Your task to perform on an android device: turn on location history Image 0: 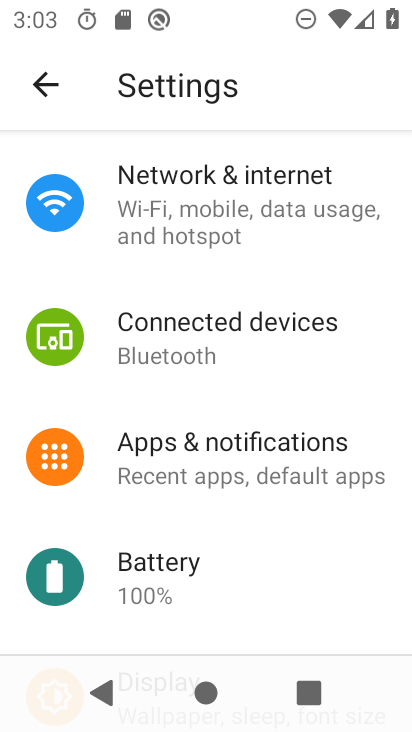
Step 0: press home button
Your task to perform on an android device: turn on location history Image 1: 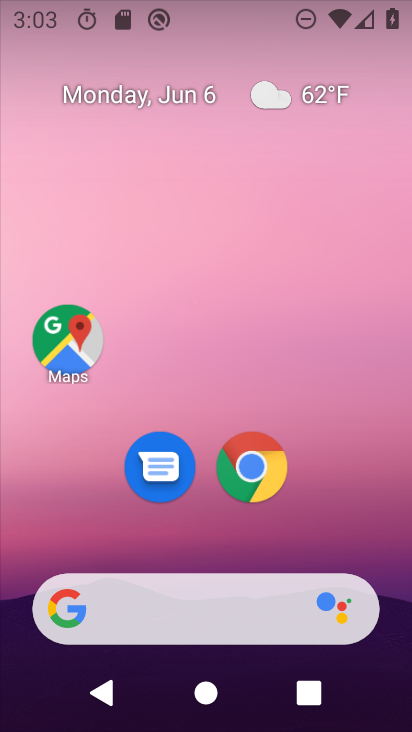
Step 1: drag from (203, 536) to (205, 48)
Your task to perform on an android device: turn on location history Image 2: 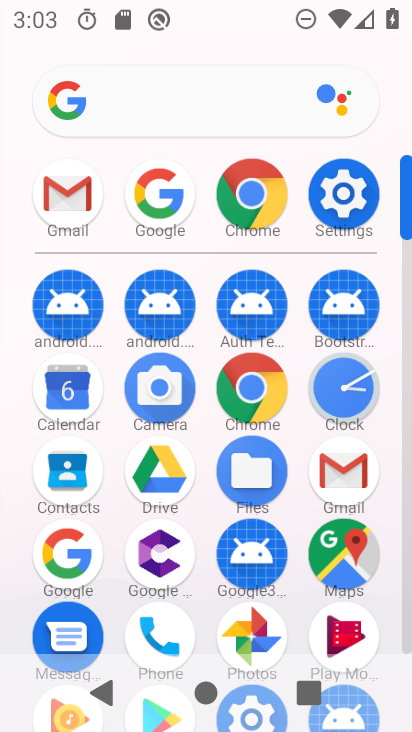
Step 2: click (344, 194)
Your task to perform on an android device: turn on location history Image 3: 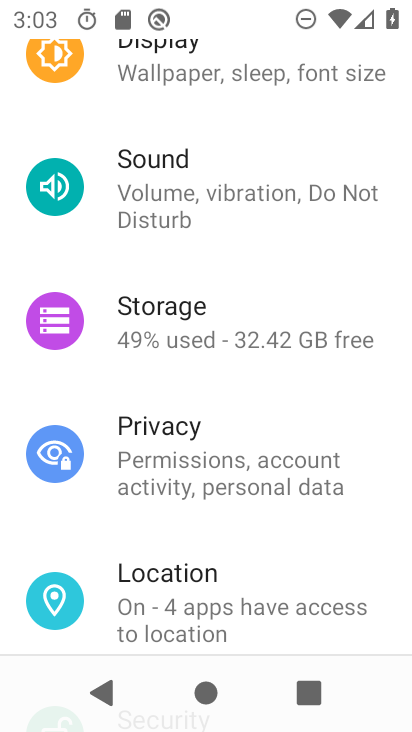
Step 3: drag from (183, 531) to (215, 146)
Your task to perform on an android device: turn on location history Image 4: 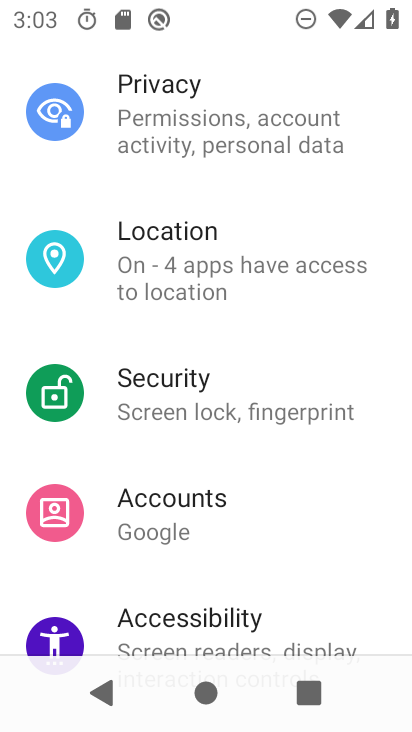
Step 4: click (239, 276)
Your task to perform on an android device: turn on location history Image 5: 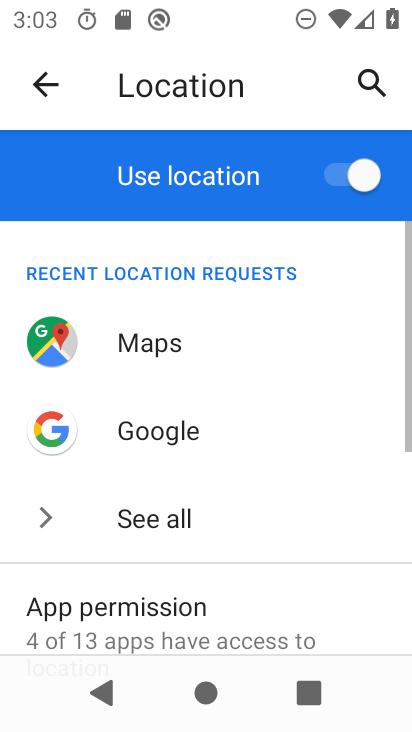
Step 5: drag from (188, 581) to (209, 190)
Your task to perform on an android device: turn on location history Image 6: 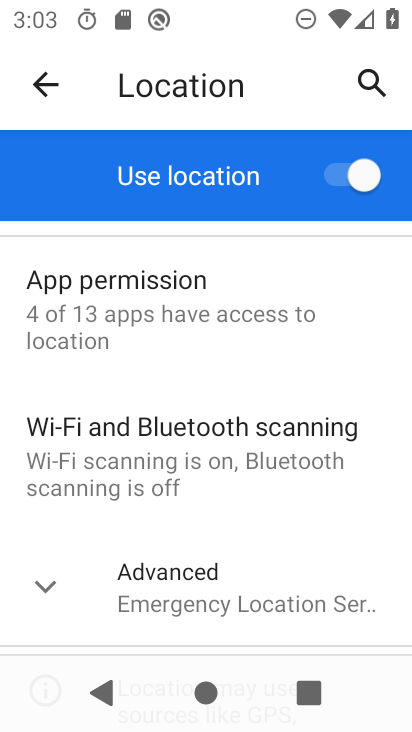
Step 6: drag from (200, 562) to (208, 152)
Your task to perform on an android device: turn on location history Image 7: 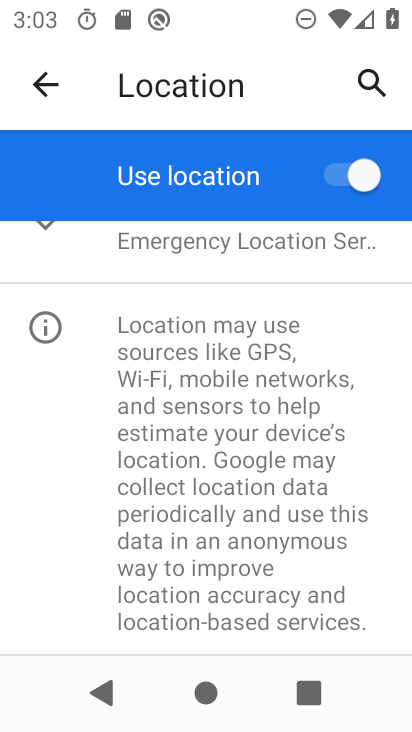
Step 7: drag from (215, 515) to (254, 233)
Your task to perform on an android device: turn on location history Image 8: 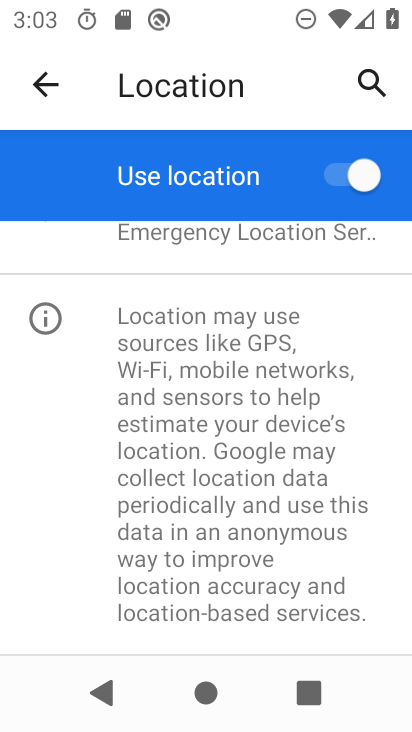
Step 8: drag from (229, 283) to (203, 485)
Your task to perform on an android device: turn on location history Image 9: 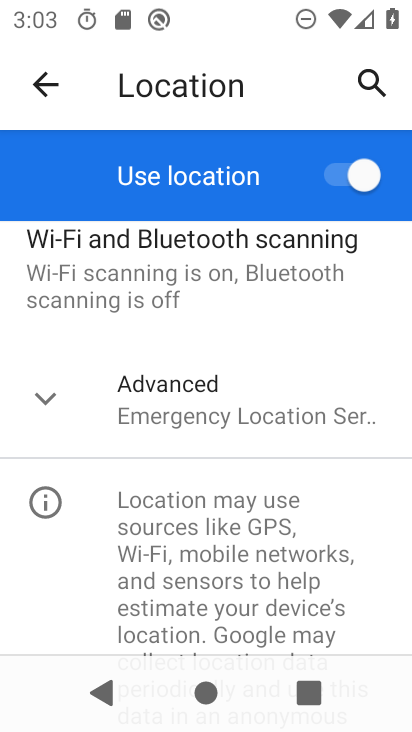
Step 9: click (125, 411)
Your task to perform on an android device: turn on location history Image 10: 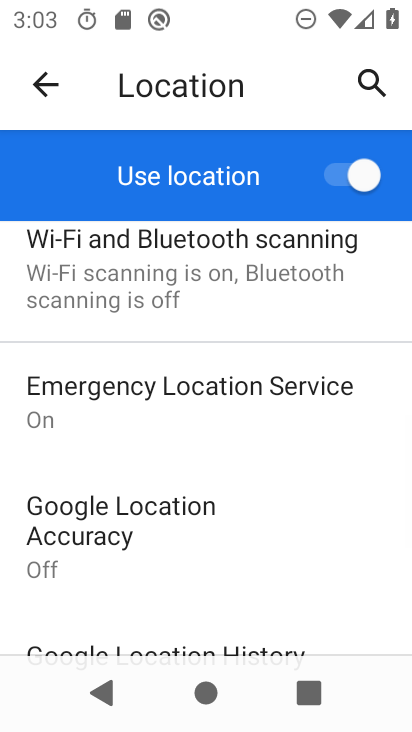
Step 10: drag from (151, 526) to (175, 299)
Your task to perform on an android device: turn on location history Image 11: 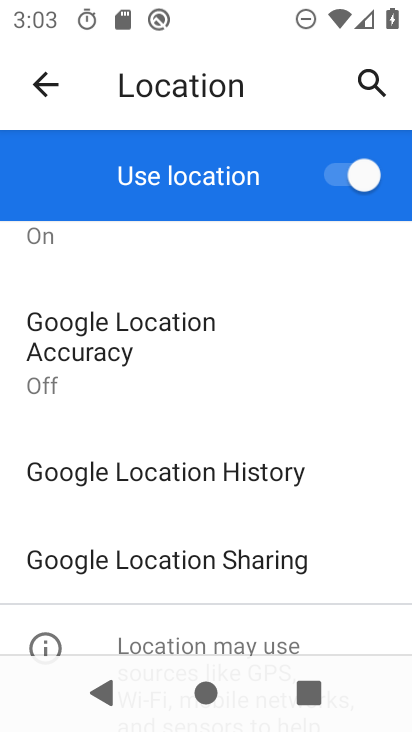
Step 11: click (124, 489)
Your task to perform on an android device: turn on location history Image 12: 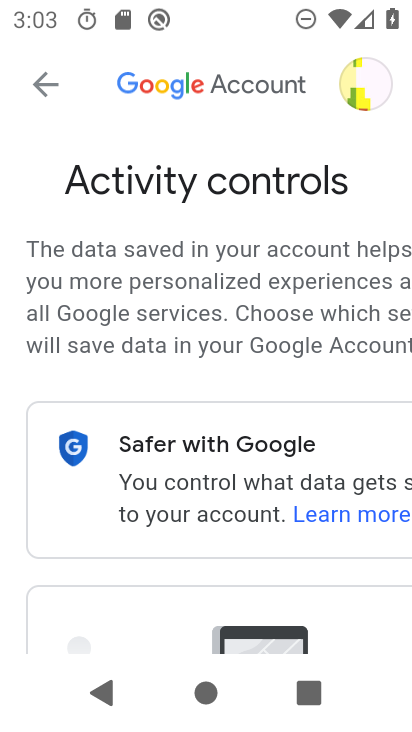
Step 12: drag from (260, 551) to (258, 261)
Your task to perform on an android device: turn on location history Image 13: 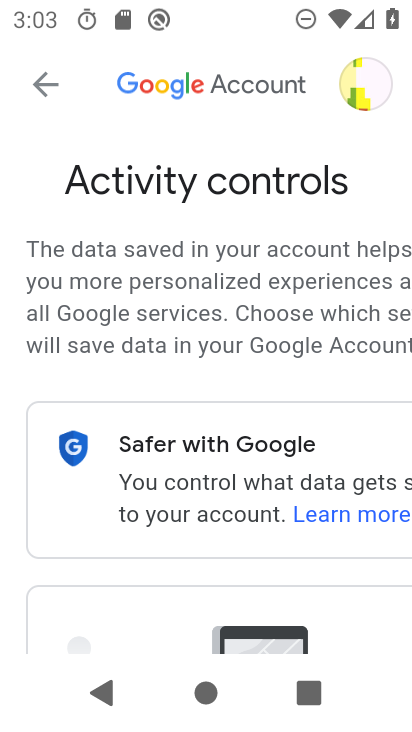
Step 13: drag from (270, 546) to (282, 156)
Your task to perform on an android device: turn on location history Image 14: 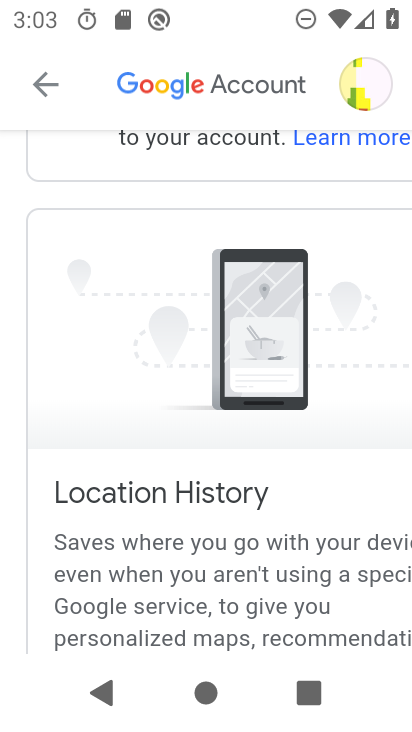
Step 14: drag from (227, 568) to (250, 226)
Your task to perform on an android device: turn on location history Image 15: 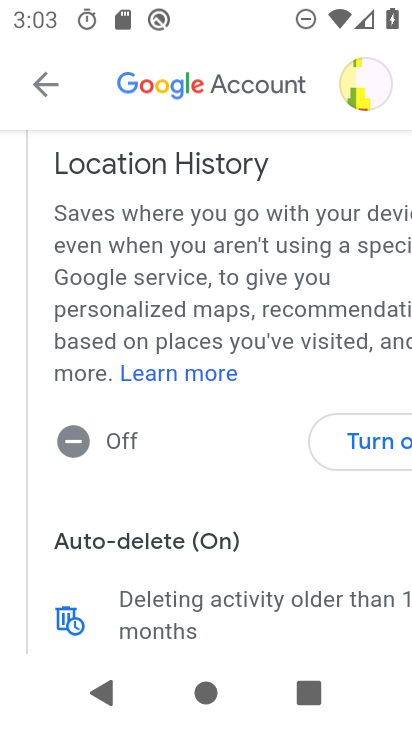
Step 15: click (360, 436)
Your task to perform on an android device: turn on location history Image 16: 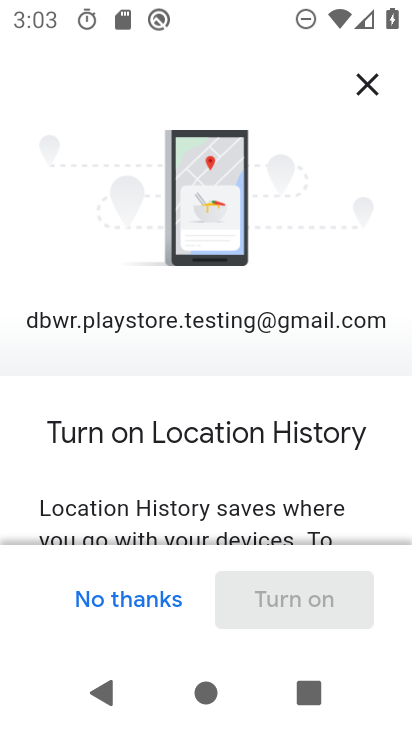
Step 16: drag from (253, 493) to (253, 167)
Your task to perform on an android device: turn on location history Image 17: 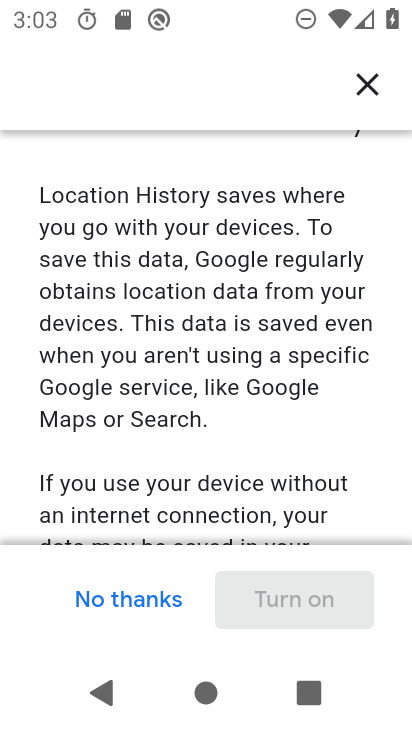
Step 17: drag from (211, 474) to (245, 159)
Your task to perform on an android device: turn on location history Image 18: 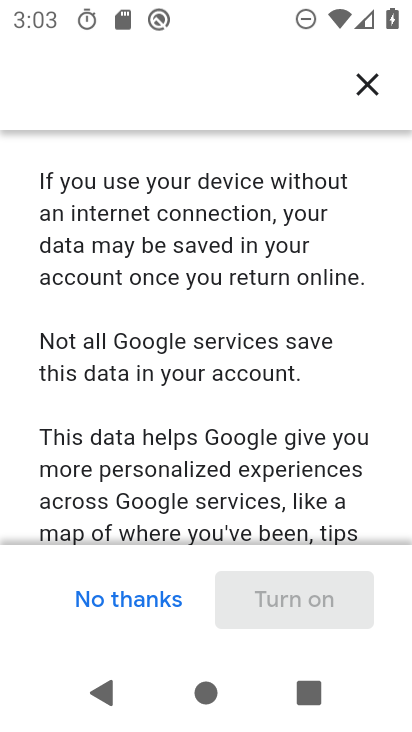
Step 18: drag from (240, 519) to (264, 155)
Your task to perform on an android device: turn on location history Image 19: 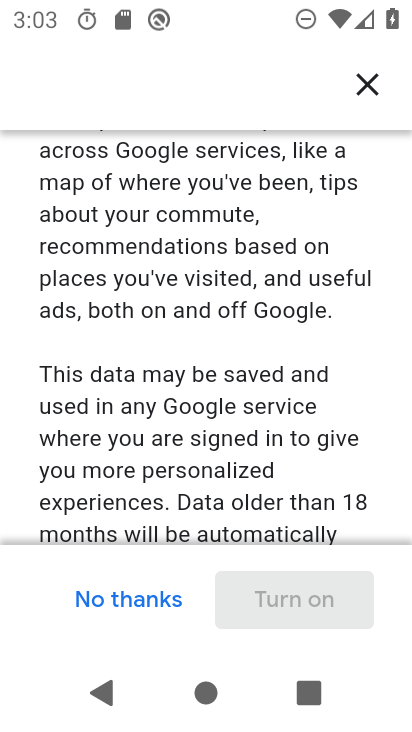
Step 19: drag from (265, 516) to (298, 139)
Your task to perform on an android device: turn on location history Image 20: 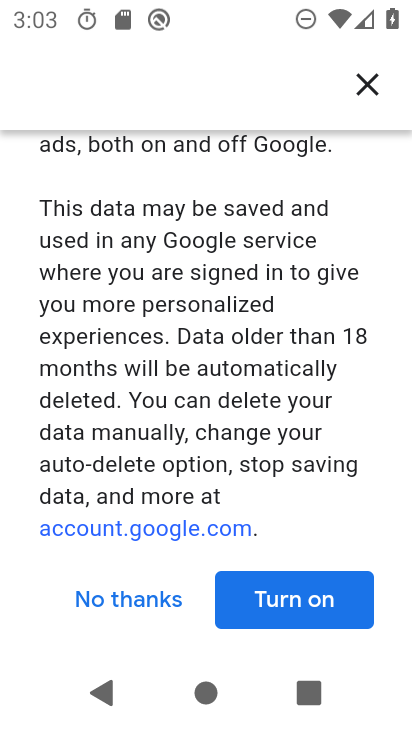
Step 20: click (280, 590)
Your task to perform on an android device: turn on location history Image 21: 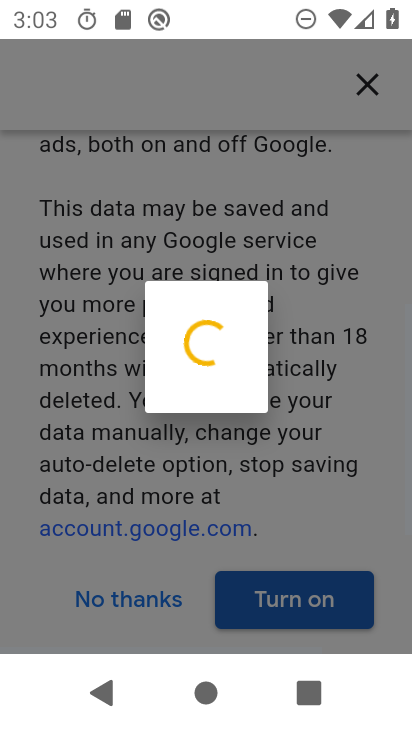
Step 21: click (270, 613)
Your task to perform on an android device: turn on location history Image 22: 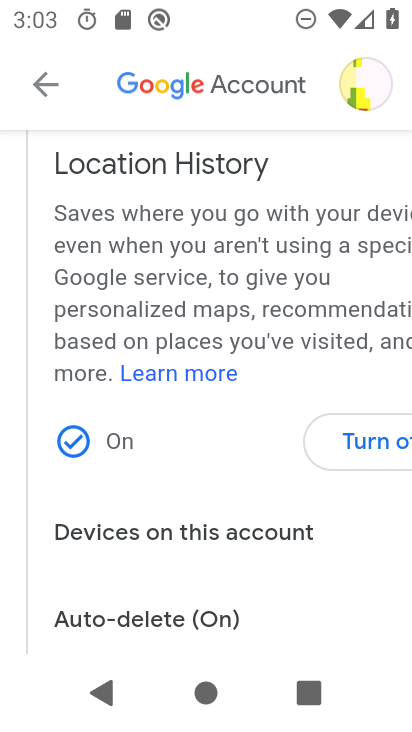
Step 22: task complete